Your task to perform on an android device: Go to Wikipedia Image 0: 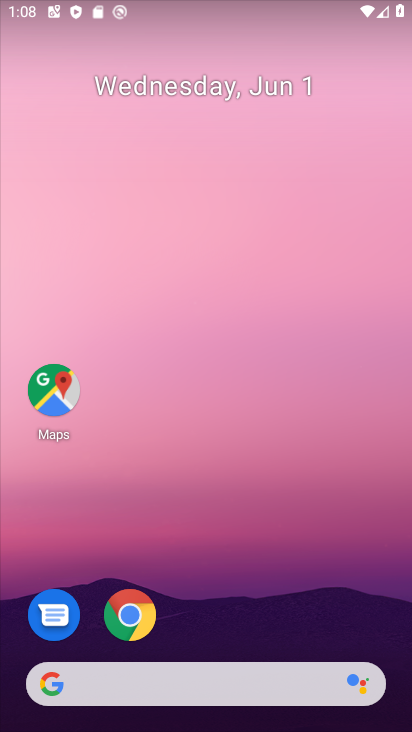
Step 0: task complete